Your task to perform on an android device: toggle wifi Image 0: 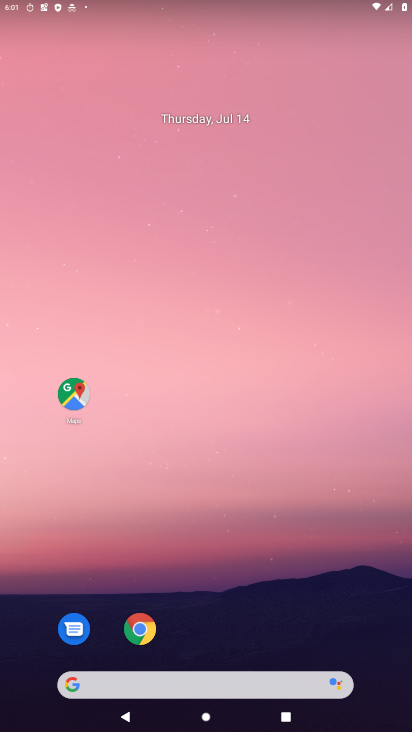
Step 0: drag from (281, 710) to (281, 99)
Your task to perform on an android device: toggle wifi Image 1: 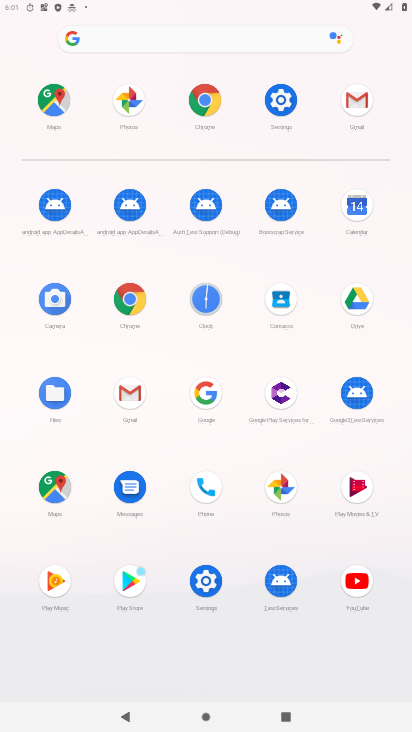
Step 1: click (282, 107)
Your task to perform on an android device: toggle wifi Image 2: 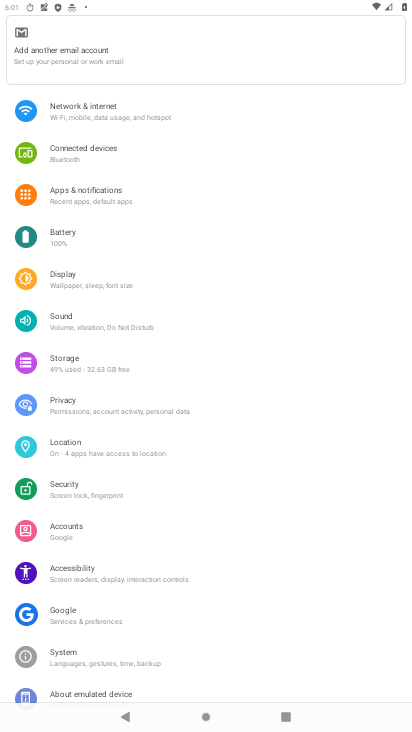
Step 2: click (143, 117)
Your task to perform on an android device: toggle wifi Image 3: 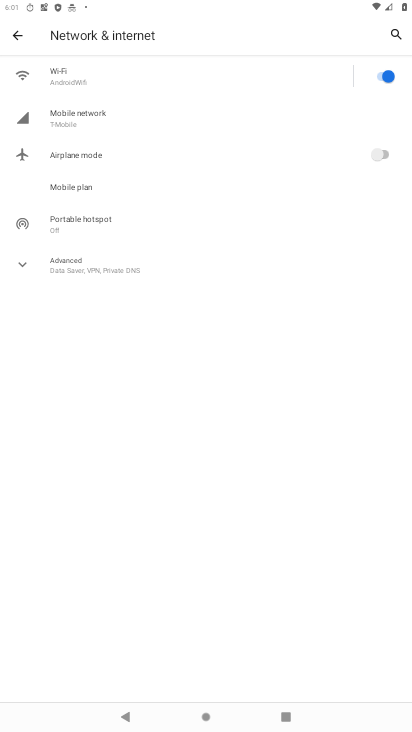
Step 3: click (381, 72)
Your task to perform on an android device: toggle wifi Image 4: 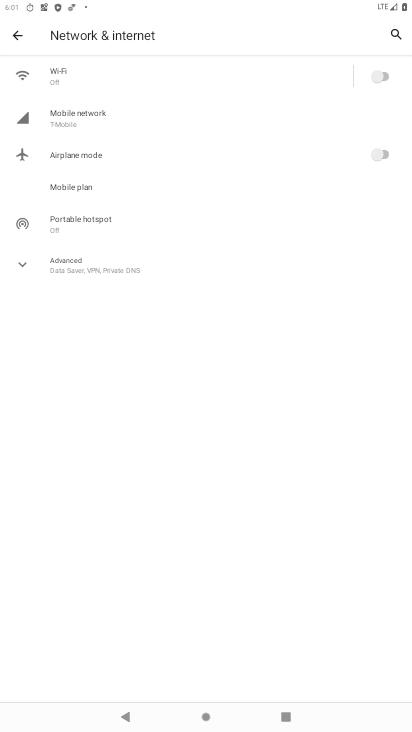
Step 4: task complete